Your task to perform on an android device: Is it going to rain today? Image 0: 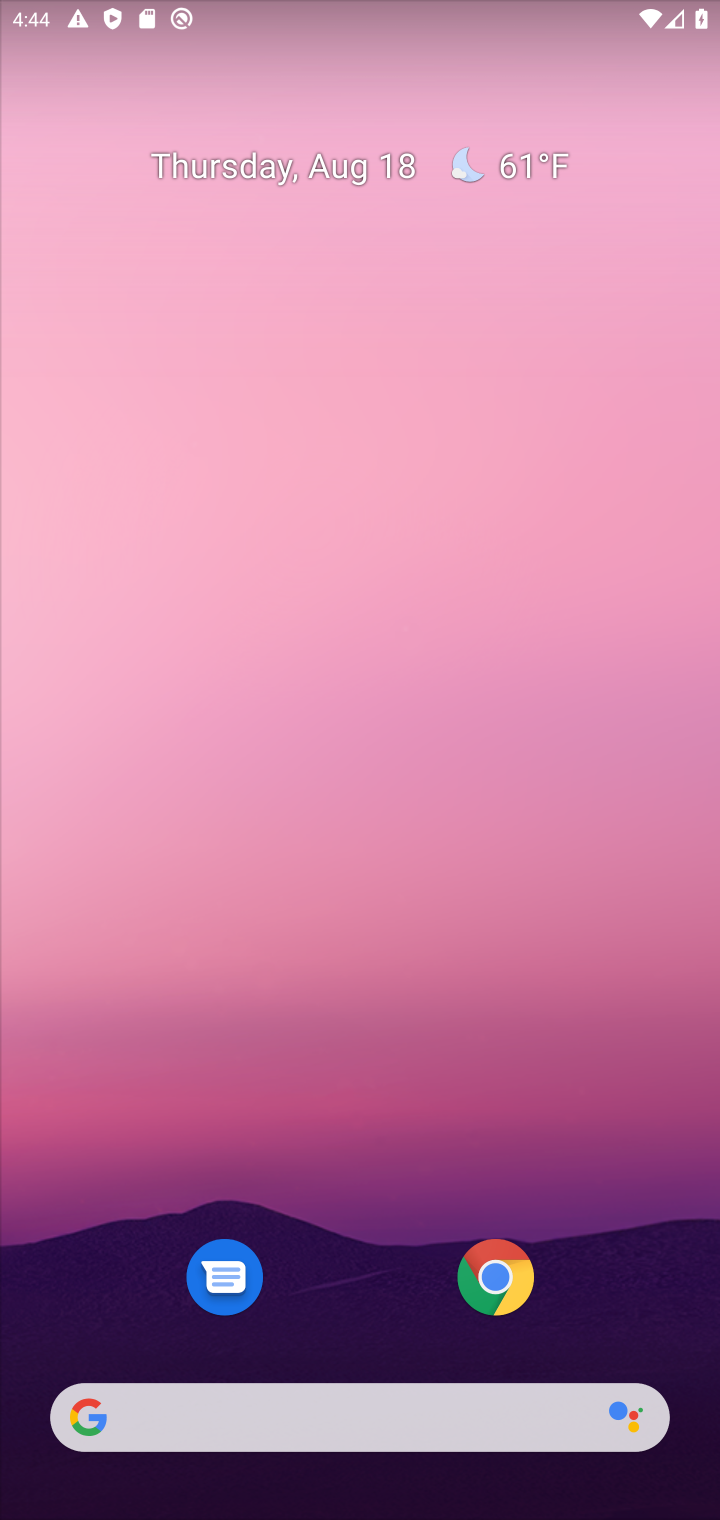
Step 0: drag from (496, 1074) to (707, 114)
Your task to perform on an android device: Is it going to rain today? Image 1: 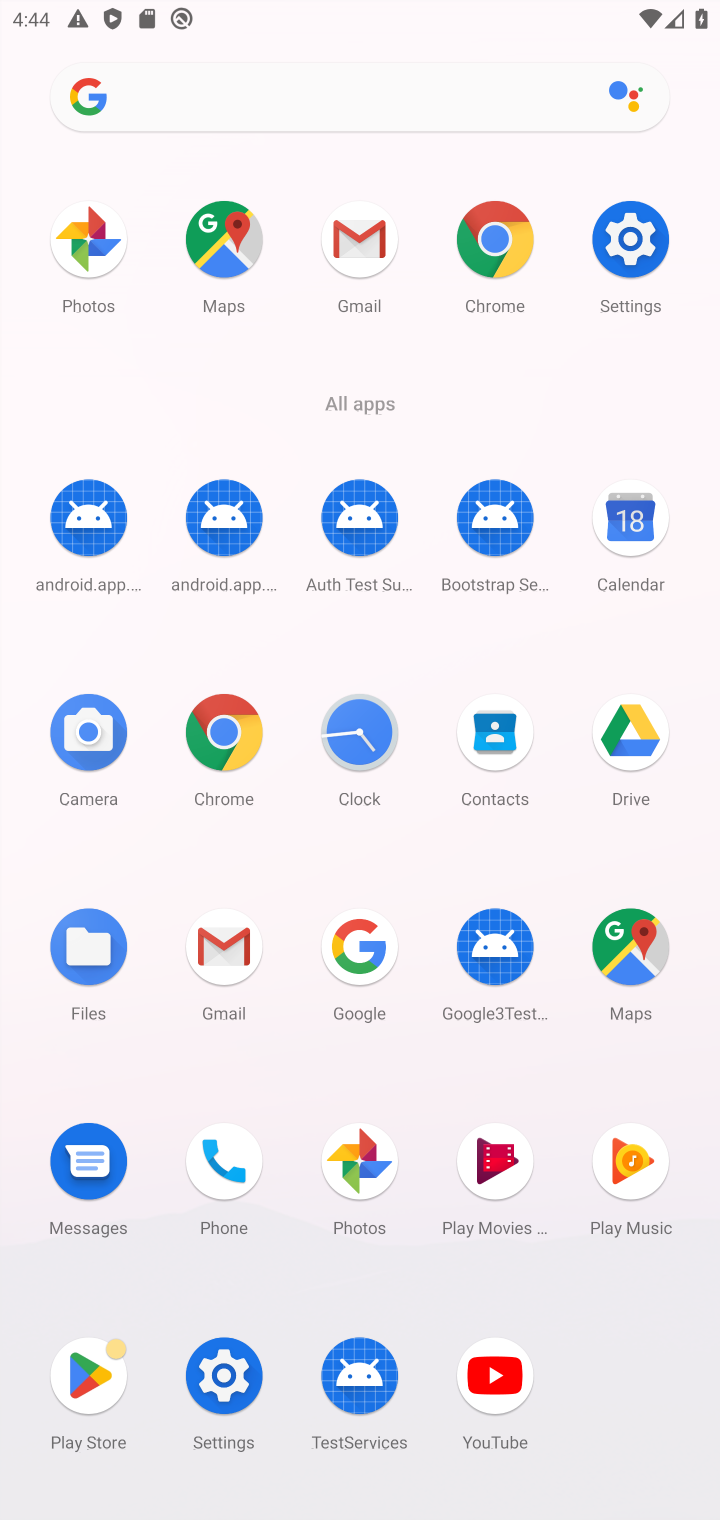
Step 1: task complete